Your task to perform on an android device: set the stopwatch Image 0: 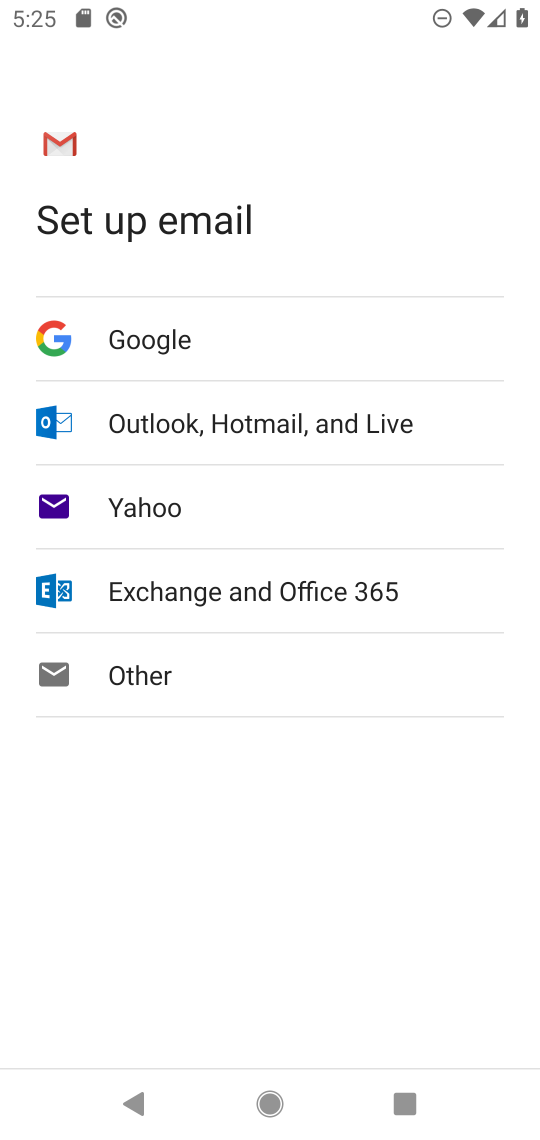
Step 0: press home button
Your task to perform on an android device: set the stopwatch Image 1: 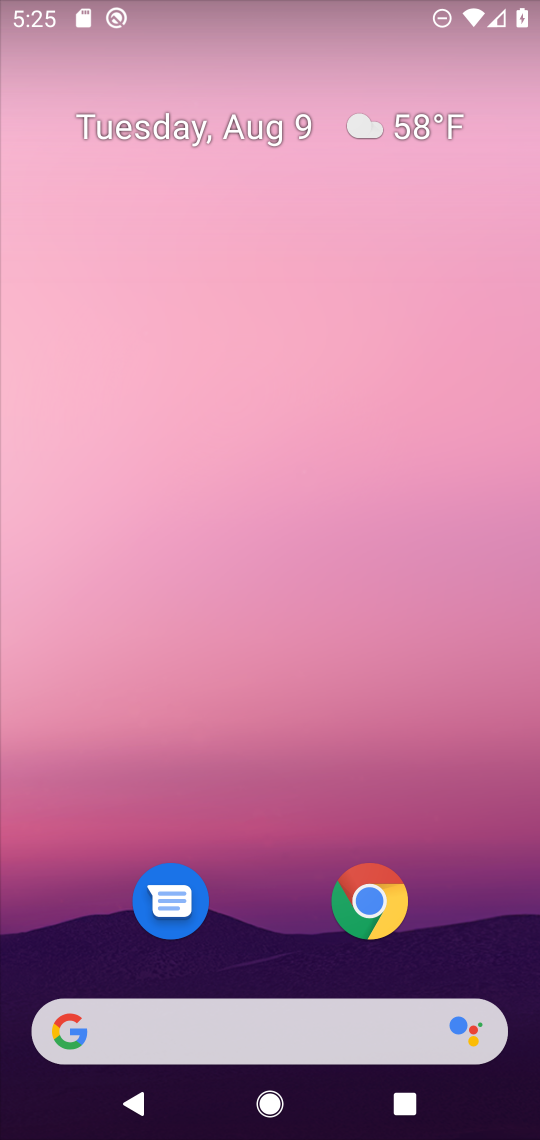
Step 1: drag from (234, 950) to (340, 47)
Your task to perform on an android device: set the stopwatch Image 2: 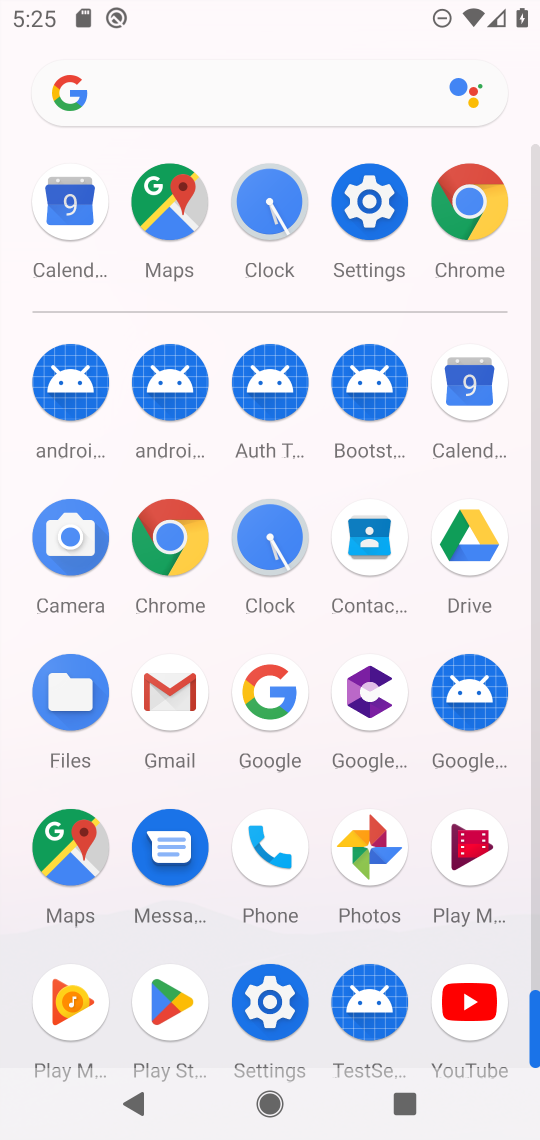
Step 2: click (266, 521)
Your task to perform on an android device: set the stopwatch Image 3: 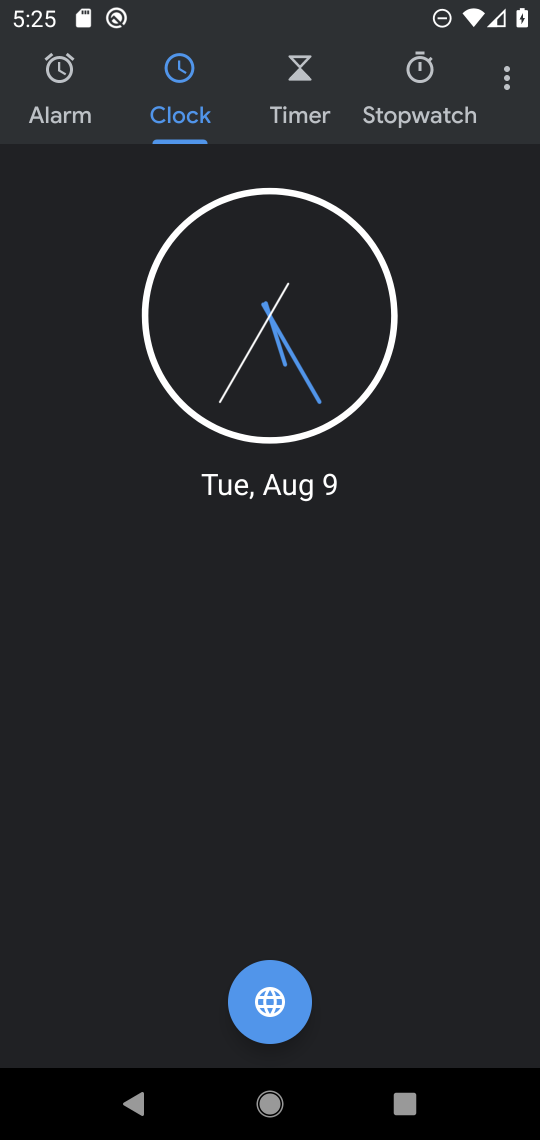
Step 3: click (419, 69)
Your task to perform on an android device: set the stopwatch Image 4: 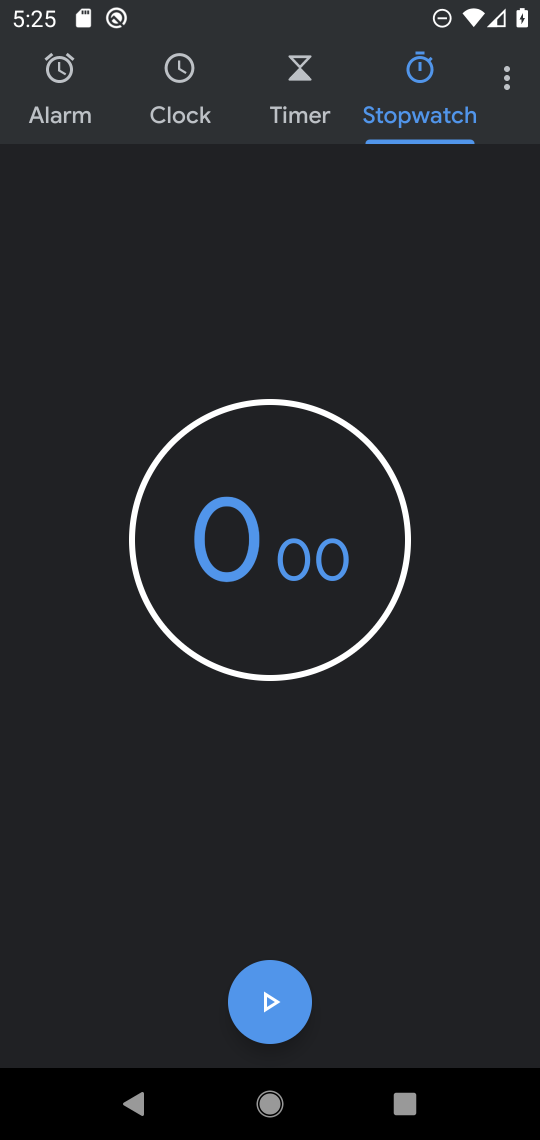
Step 4: click (257, 1005)
Your task to perform on an android device: set the stopwatch Image 5: 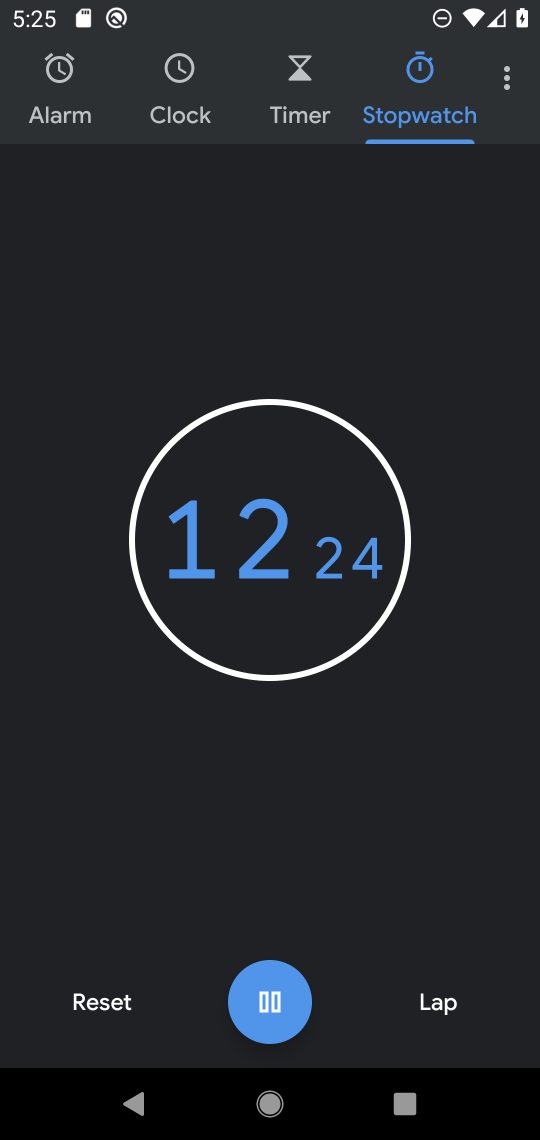
Step 5: task complete